Your task to perform on an android device: delete browsing data in the chrome app Image 0: 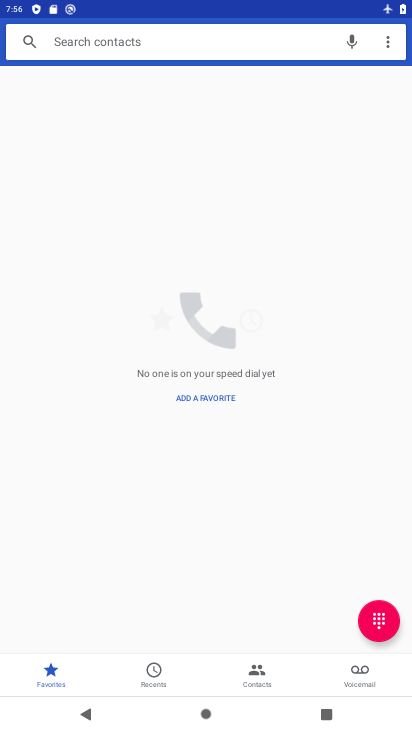
Step 0: press home button
Your task to perform on an android device: delete browsing data in the chrome app Image 1: 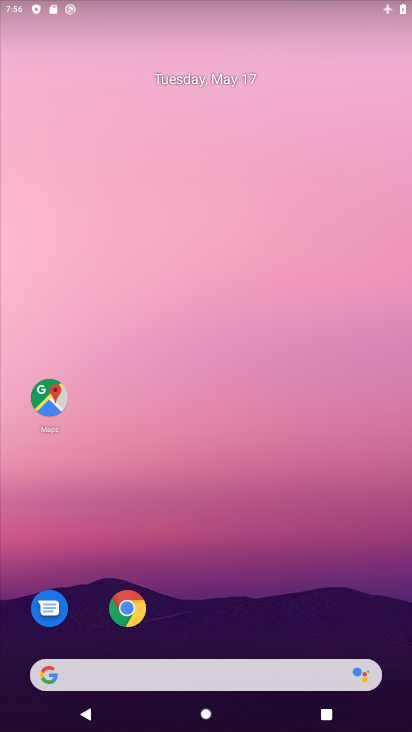
Step 1: drag from (317, 573) to (280, 128)
Your task to perform on an android device: delete browsing data in the chrome app Image 2: 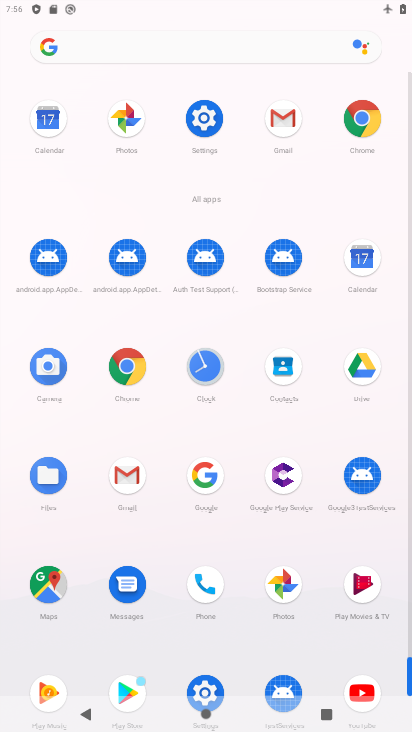
Step 2: click (113, 356)
Your task to perform on an android device: delete browsing data in the chrome app Image 3: 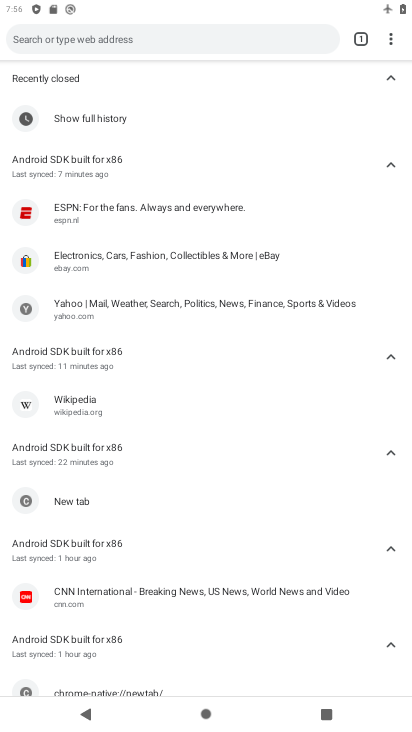
Step 3: task complete